Your task to perform on an android device: create a new album in the google photos Image 0: 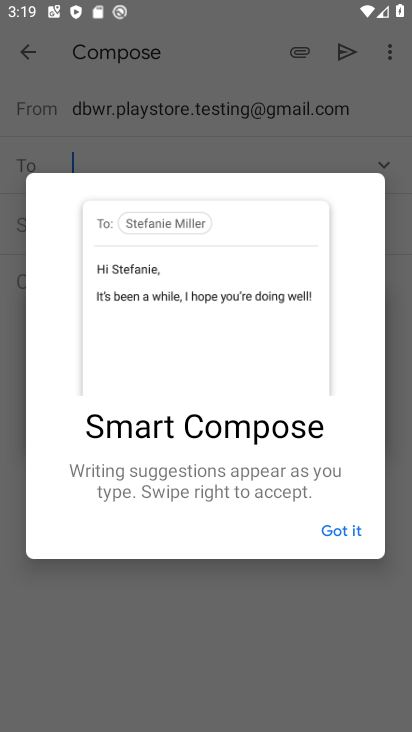
Step 0: press home button
Your task to perform on an android device: create a new album in the google photos Image 1: 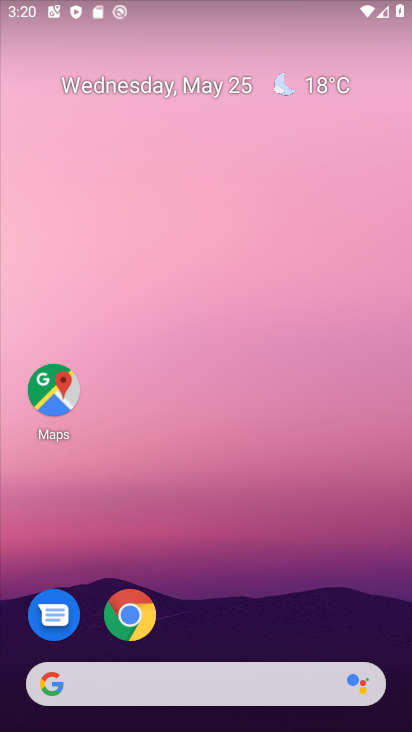
Step 1: drag from (306, 655) to (265, 5)
Your task to perform on an android device: create a new album in the google photos Image 2: 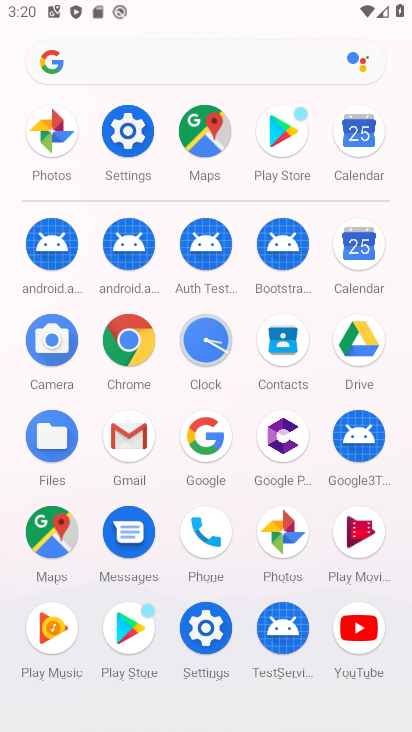
Step 2: click (296, 531)
Your task to perform on an android device: create a new album in the google photos Image 3: 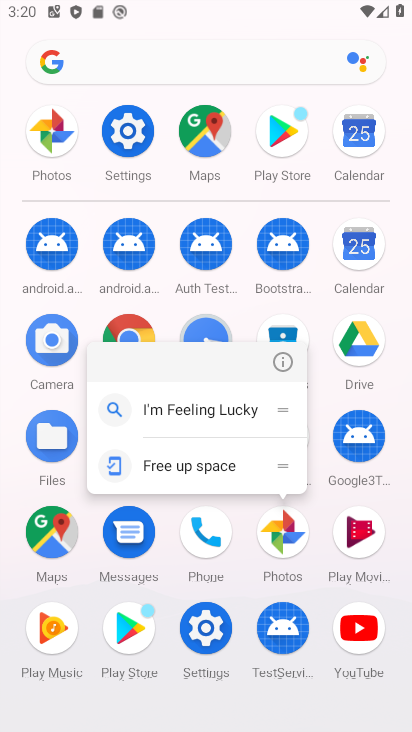
Step 3: click (299, 529)
Your task to perform on an android device: create a new album in the google photos Image 4: 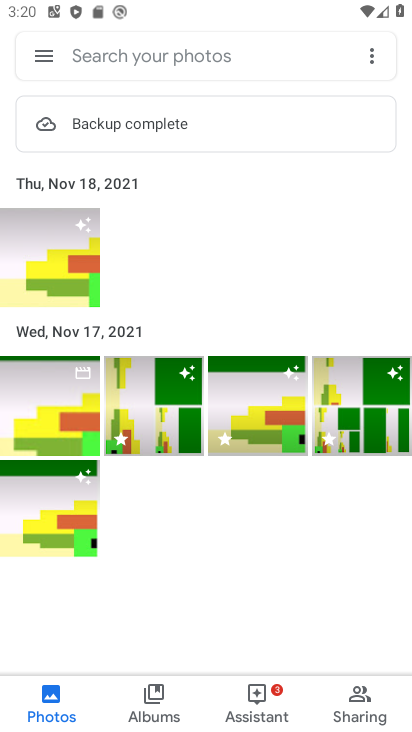
Step 4: click (99, 388)
Your task to perform on an android device: create a new album in the google photos Image 5: 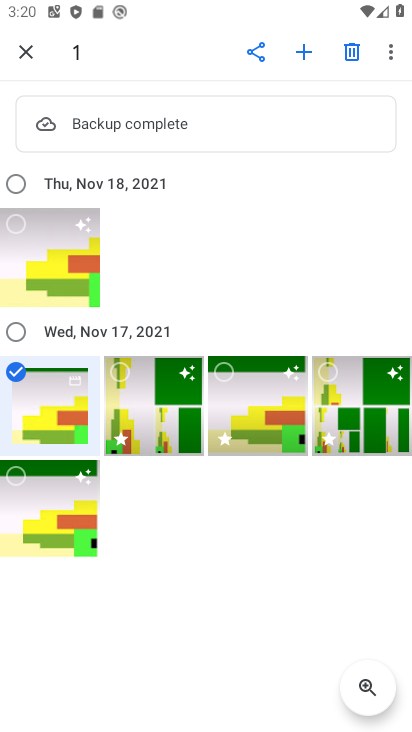
Step 5: click (296, 44)
Your task to perform on an android device: create a new album in the google photos Image 6: 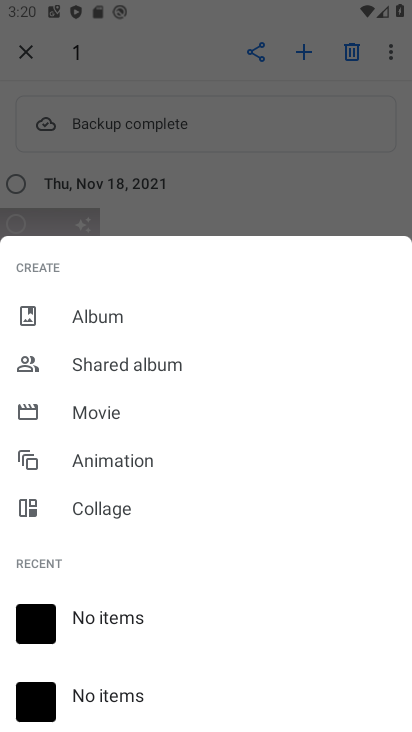
Step 6: click (102, 329)
Your task to perform on an android device: create a new album in the google photos Image 7: 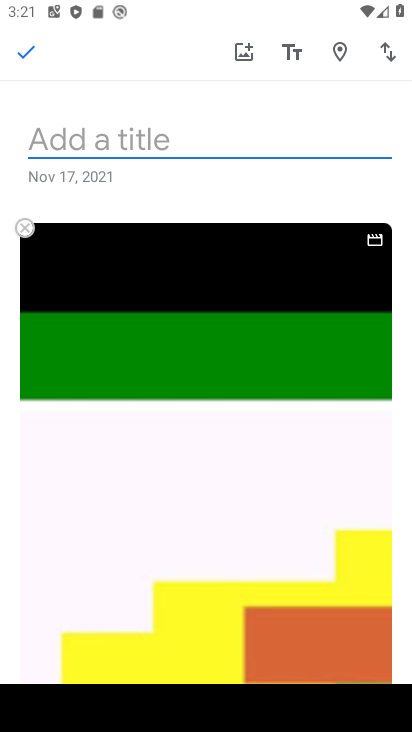
Step 7: type "huy"
Your task to perform on an android device: create a new album in the google photos Image 8: 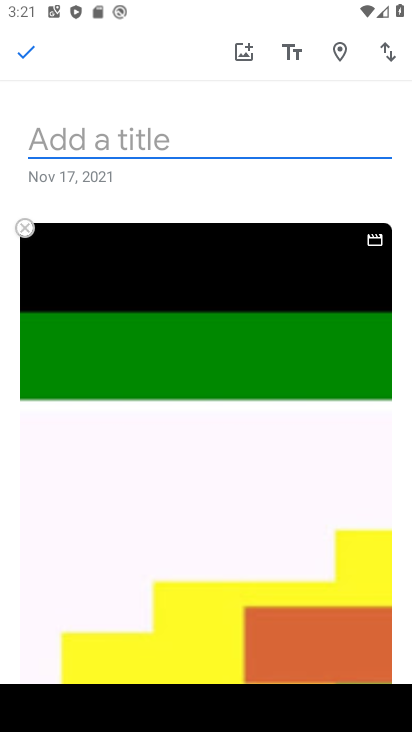
Step 8: click (22, 57)
Your task to perform on an android device: create a new album in the google photos Image 9: 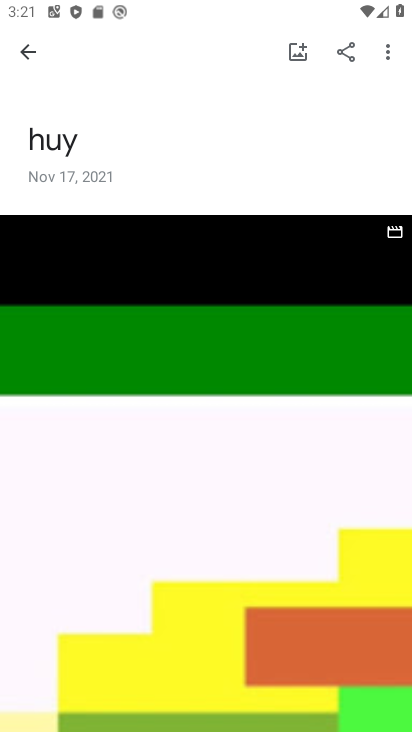
Step 9: task complete